Your task to perform on an android device: Open Chrome and go to settings Image 0: 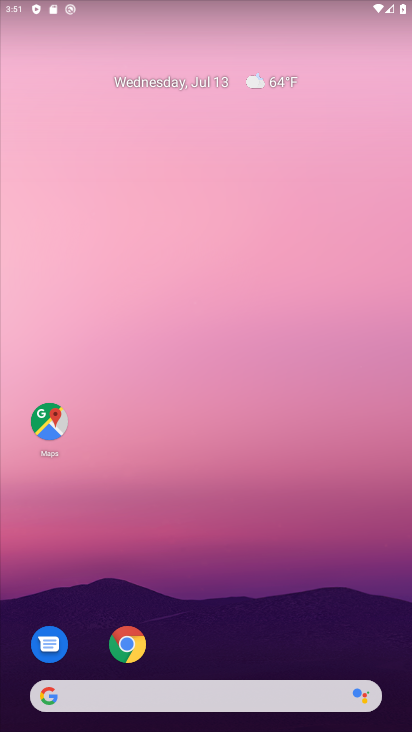
Step 0: click (133, 635)
Your task to perform on an android device: Open Chrome and go to settings Image 1: 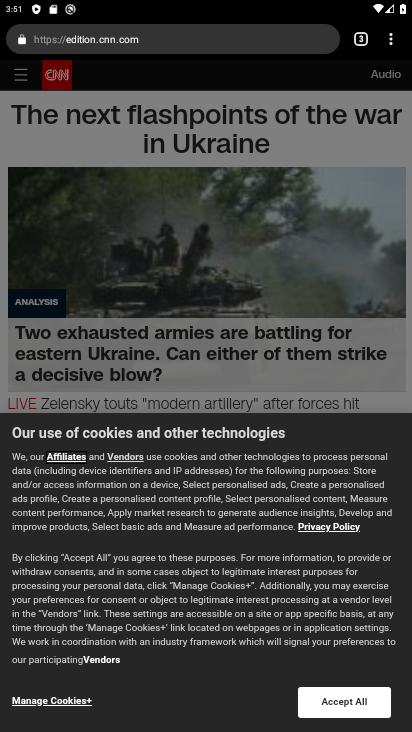
Step 1: task complete